Your task to perform on an android device: Turn on the flashlight Image 0: 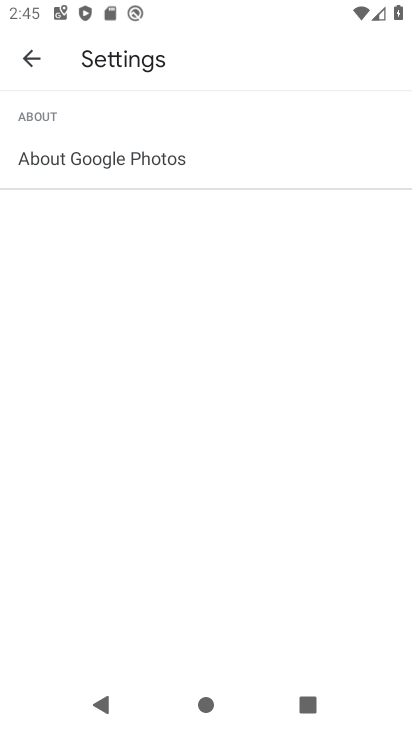
Step 0: press home button
Your task to perform on an android device: Turn on the flashlight Image 1: 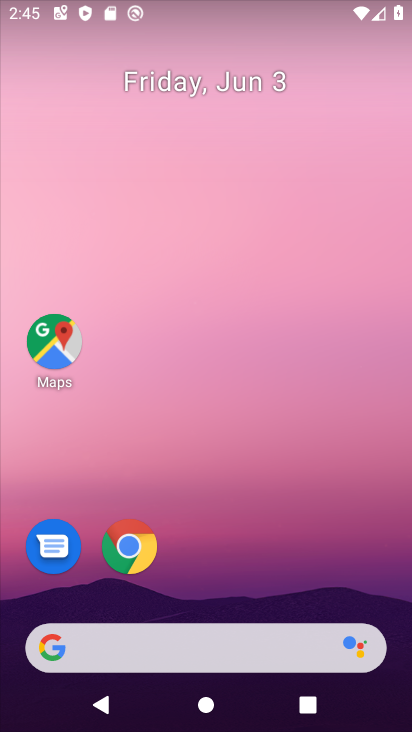
Step 1: drag from (264, 557) to (286, 142)
Your task to perform on an android device: Turn on the flashlight Image 2: 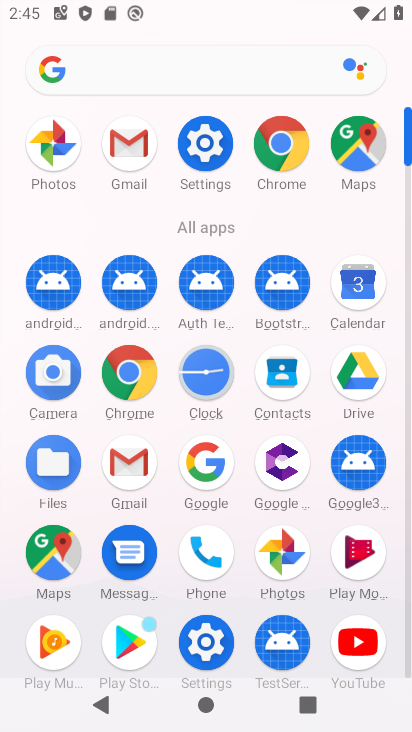
Step 2: click (215, 138)
Your task to perform on an android device: Turn on the flashlight Image 3: 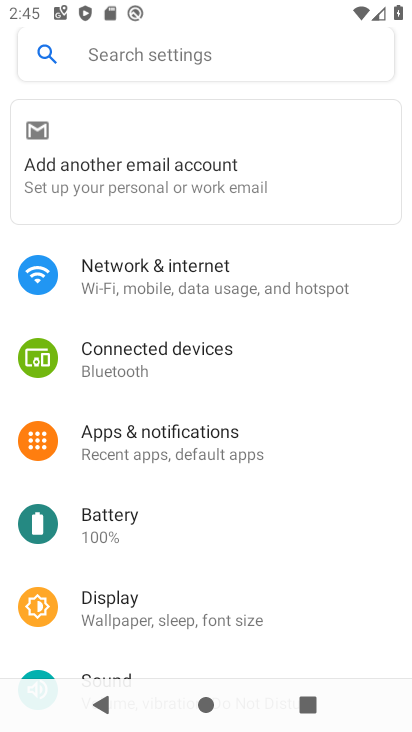
Step 3: task complete